Your task to perform on an android device: find snoozed emails in the gmail app Image 0: 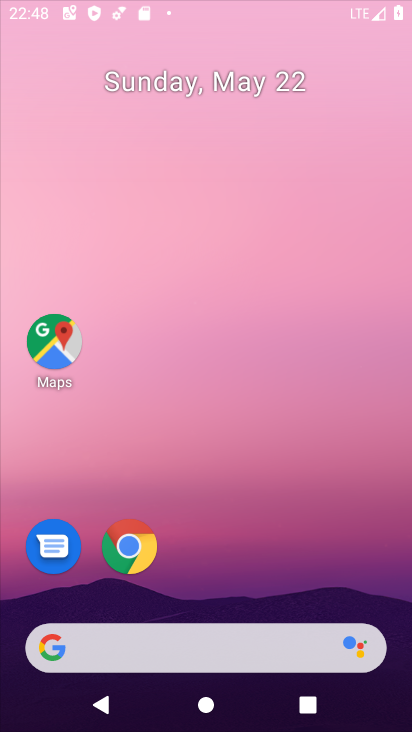
Step 0: drag from (205, 604) to (266, 120)
Your task to perform on an android device: find snoozed emails in the gmail app Image 1: 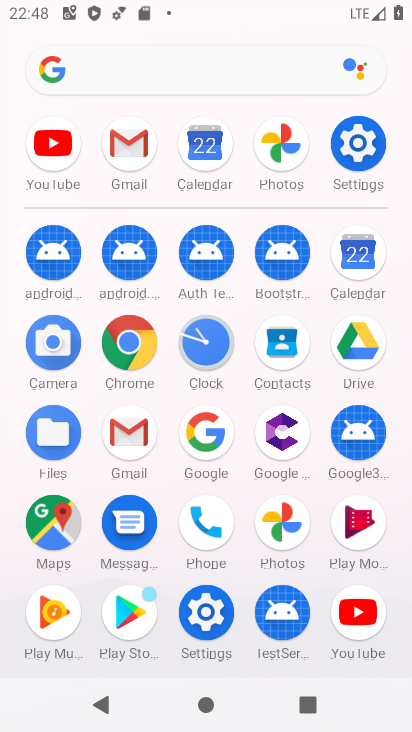
Step 1: click (152, 446)
Your task to perform on an android device: find snoozed emails in the gmail app Image 2: 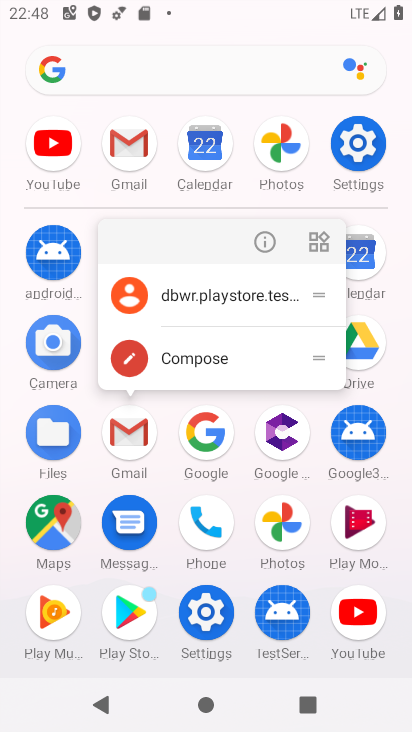
Step 2: click (216, 309)
Your task to perform on an android device: find snoozed emails in the gmail app Image 3: 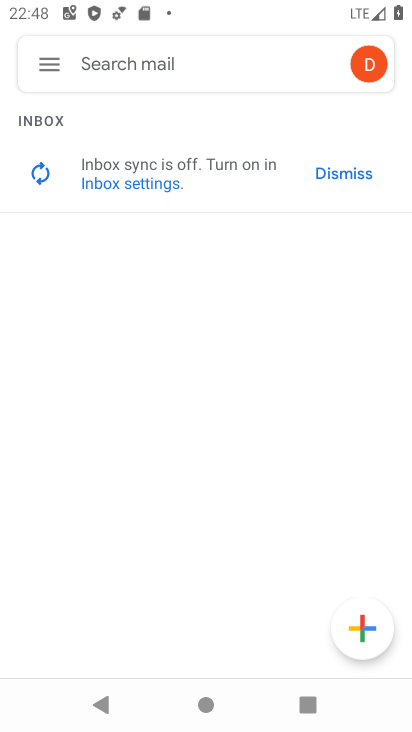
Step 3: click (53, 81)
Your task to perform on an android device: find snoozed emails in the gmail app Image 4: 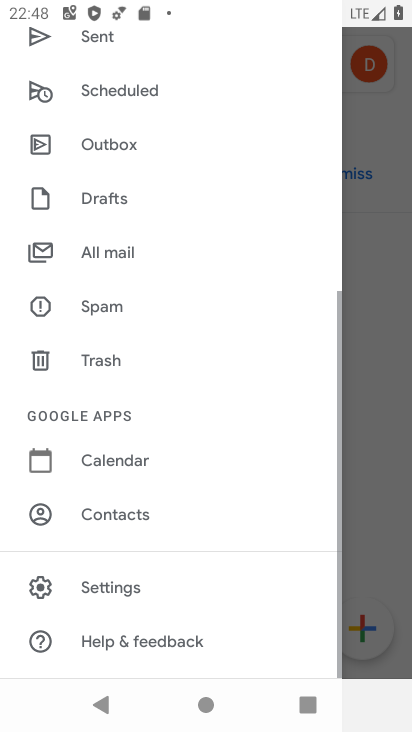
Step 4: drag from (163, 106) to (175, 717)
Your task to perform on an android device: find snoozed emails in the gmail app Image 5: 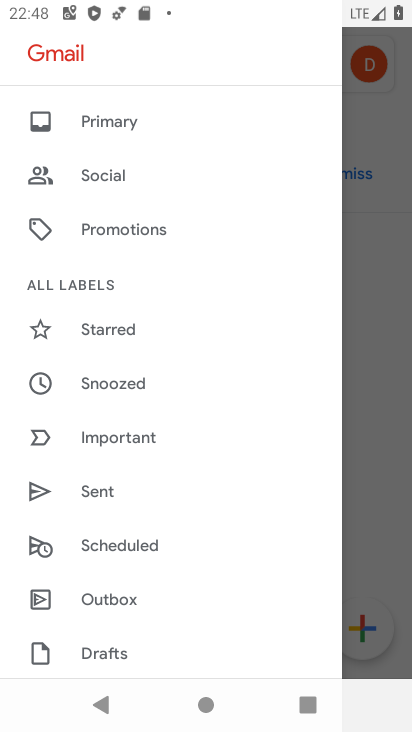
Step 5: click (108, 391)
Your task to perform on an android device: find snoozed emails in the gmail app Image 6: 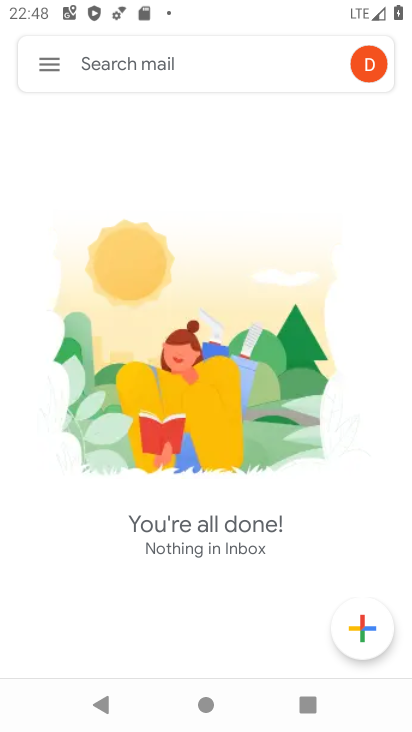
Step 6: task complete